Your task to perform on an android device: Open the calendar app, open the side menu, and click the "Day" option Image 0: 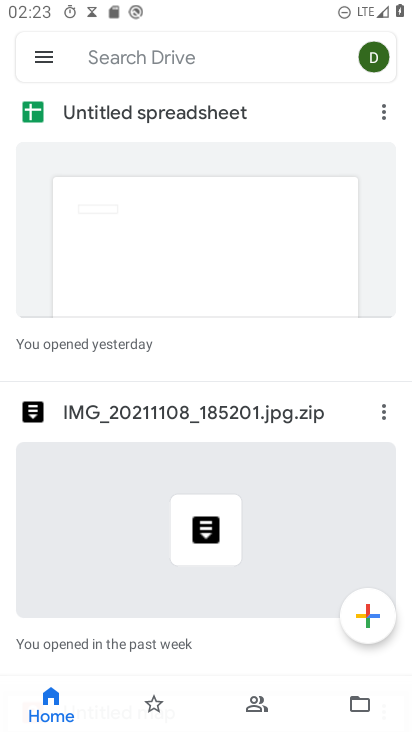
Step 0: press home button
Your task to perform on an android device: Open the calendar app, open the side menu, and click the "Day" option Image 1: 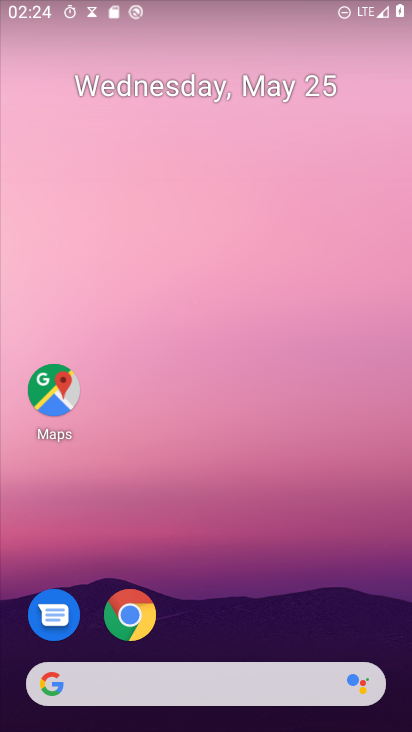
Step 1: drag from (198, 715) to (229, 137)
Your task to perform on an android device: Open the calendar app, open the side menu, and click the "Day" option Image 2: 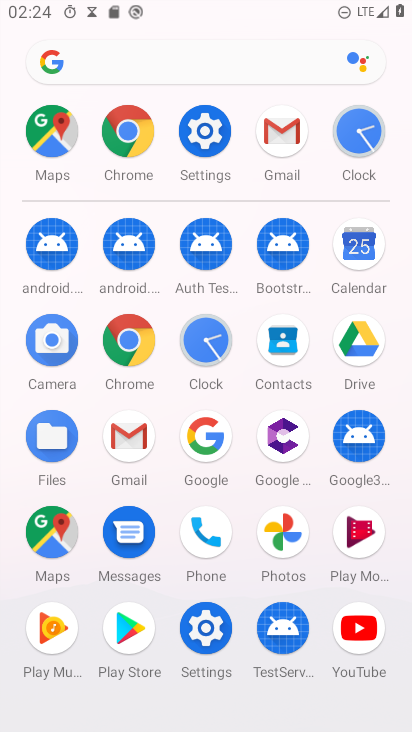
Step 2: click (353, 257)
Your task to perform on an android device: Open the calendar app, open the side menu, and click the "Day" option Image 3: 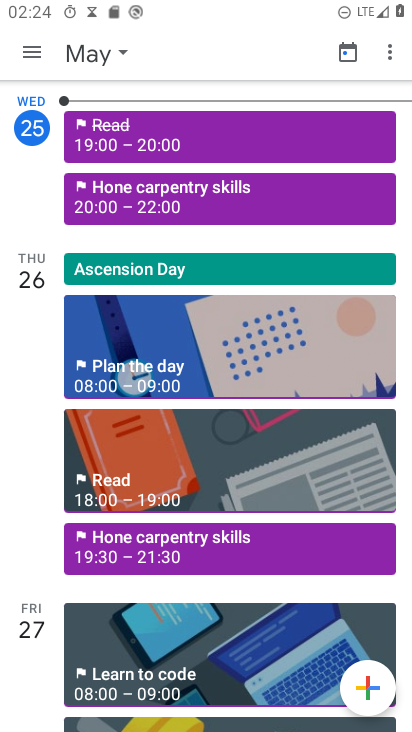
Step 3: click (43, 60)
Your task to perform on an android device: Open the calendar app, open the side menu, and click the "Day" option Image 4: 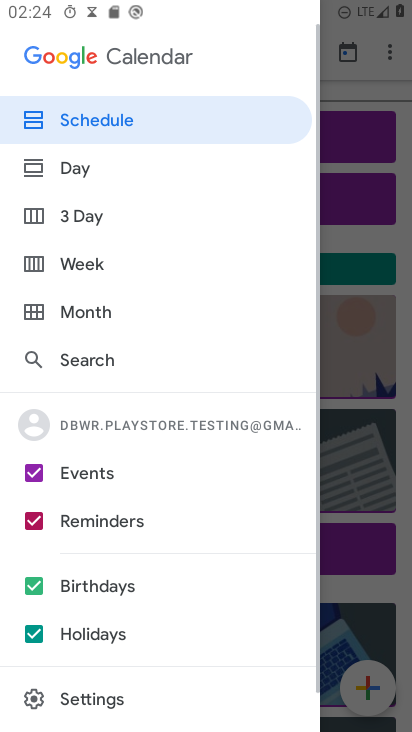
Step 4: click (96, 166)
Your task to perform on an android device: Open the calendar app, open the side menu, and click the "Day" option Image 5: 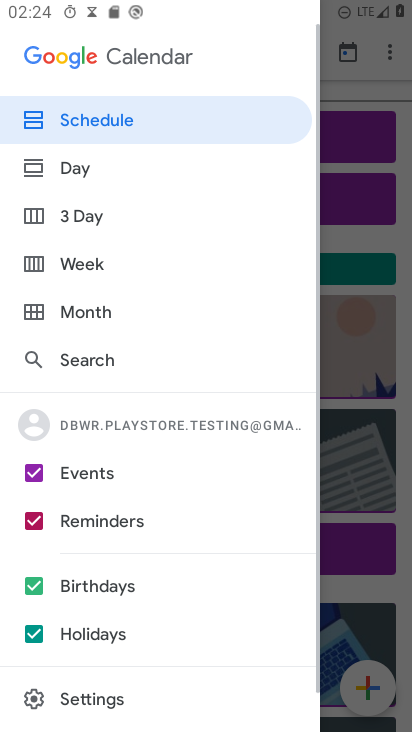
Step 5: task complete